Your task to perform on an android device: Open display settings Image 0: 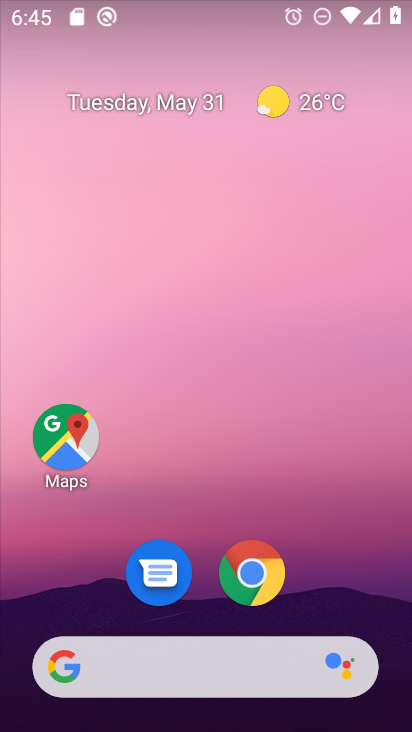
Step 0: drag from (380, 570) to (205, 2)
Your task to perform on an android device: Open display settings Image 1: 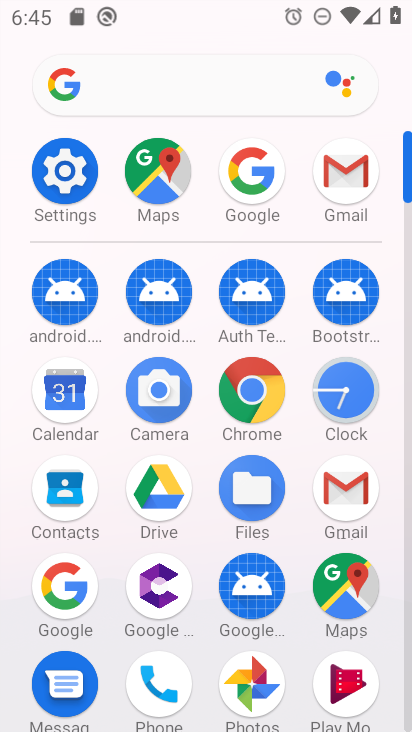
Step 1: click (34, 190)
Your task to perform on an android device: Open display settings Image 2: 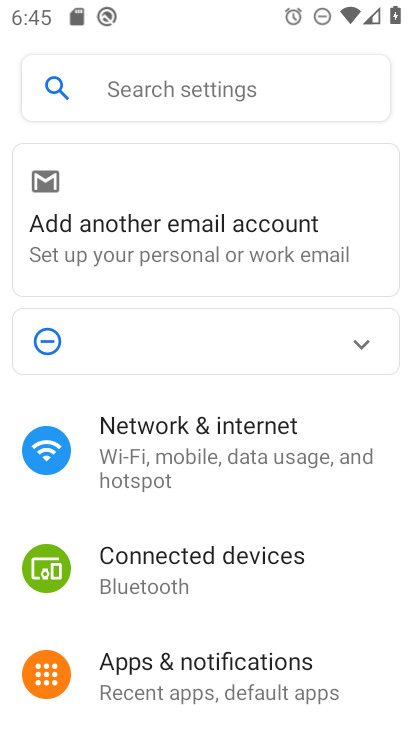
Step 2: drag from (154, 667) to (240, 263)
Your task to perform on an android device: Open display settings Image 3: 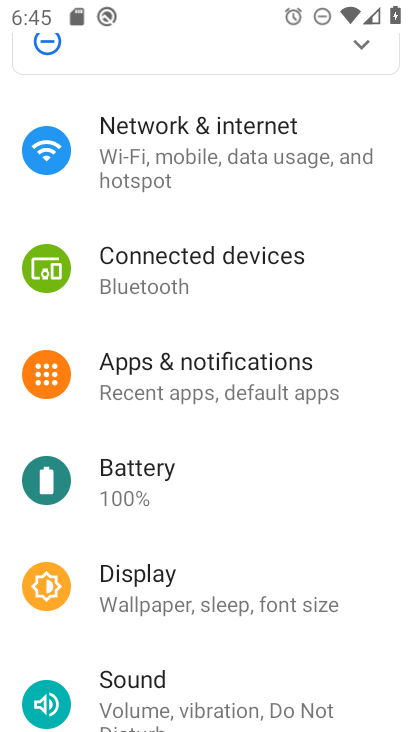
Step 3: click (117, 575)
Your task to perform on an android device: Open display settings Image 4: 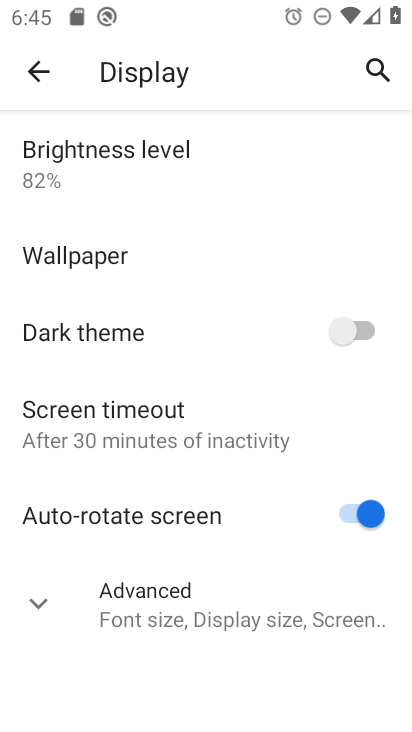
Step 4: task complete